Your task to perform on an android device: turn notification dots on Image 0: 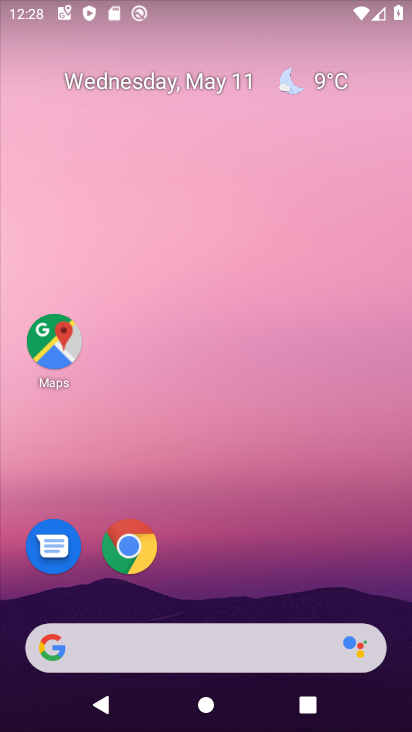
Step 0: drag from (370, 589) to (348, 0)
Your task to perform on an android device: turn notification dots on Image 1: 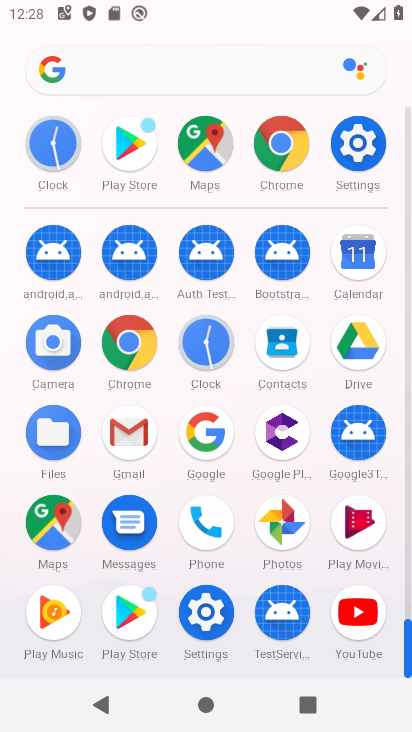
Step 1: click (373, 149)
Your task to perform on an android device: turn notification dots on Image 2: 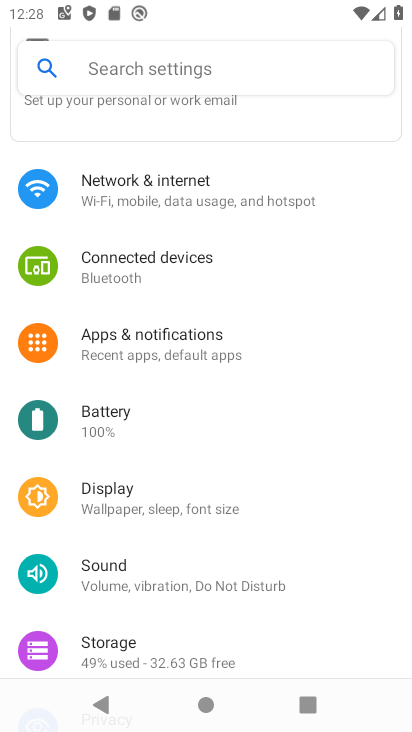
Step 2: click (223, 348)
Your task to perform on an android device: turn notification dots on Image 3: 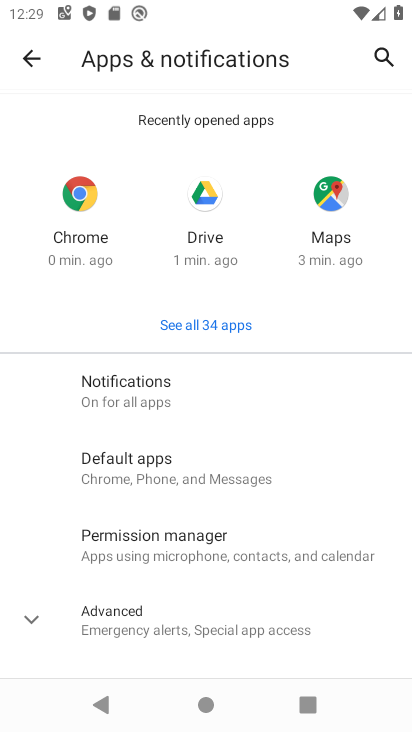
Step 3: click (183, 409)
Your task to perform on an android device: turn notification dots on Image 4: 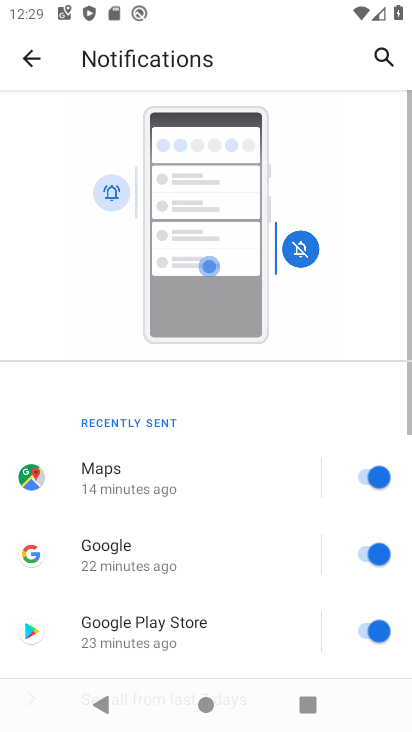
Step 4: drag from (280, 613) to (198, 166)
Your task to perform on an android device: turn notification dots on Image 5: 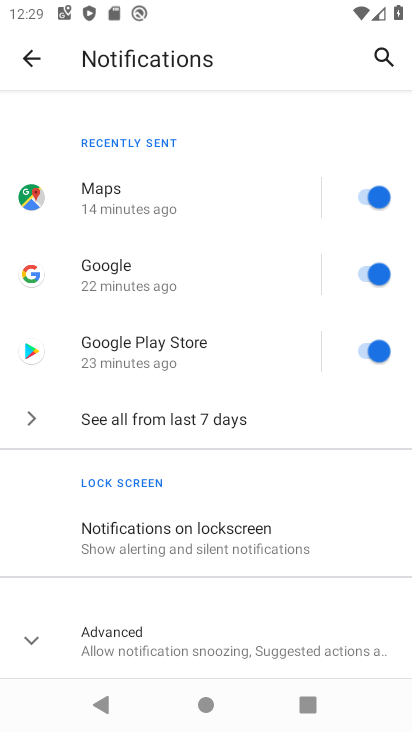
Step 5: click (212, 631)
Your task to perform on an android device: turn notification dots on Image 6: 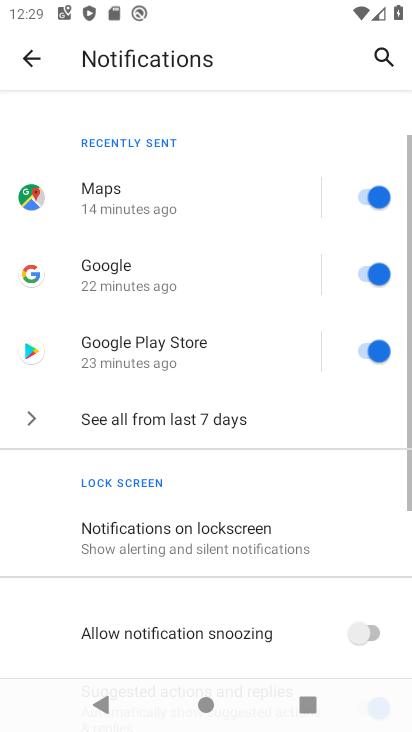
Step 6: task complete